Your task to perform on an android device: What's the weather? Image 0: 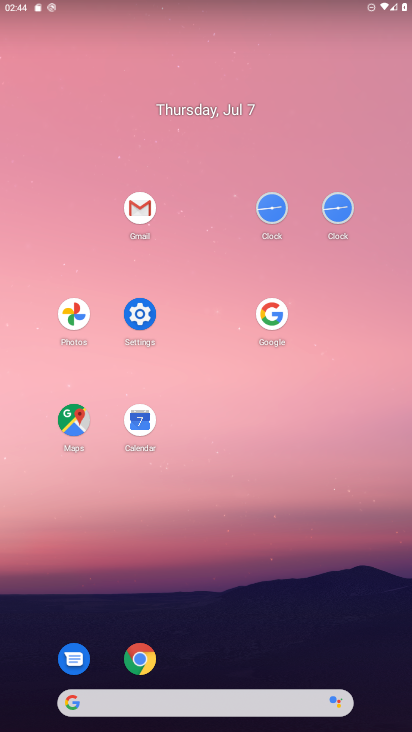
Step 0: click (281, 311)
Your task to perform on an android device: What's the weather? Image 1: 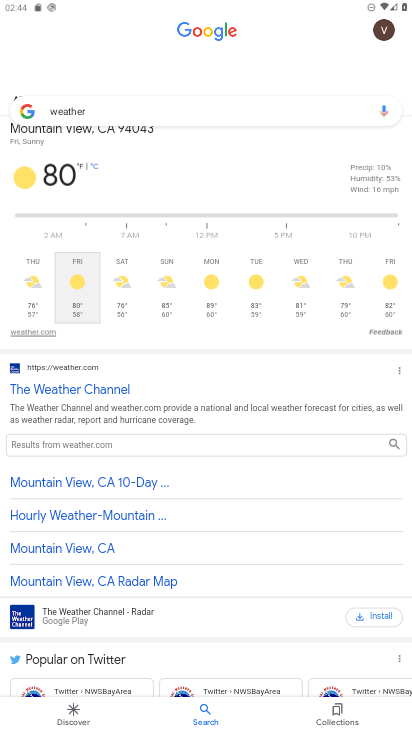
Step 1: click (33, 276)
Your task to perform on an android device: What's the weather? Image 2: 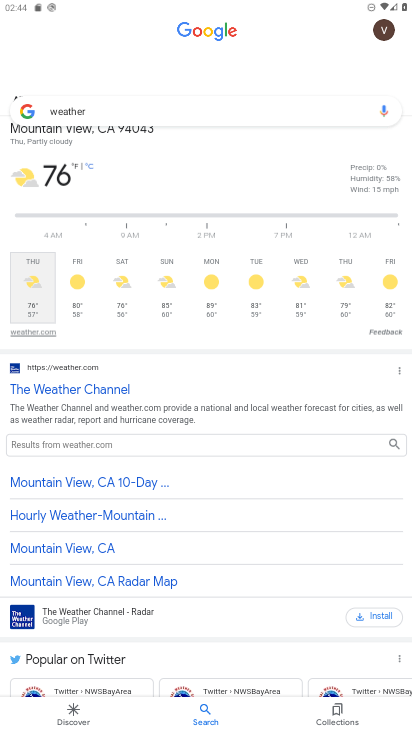
Step 2: task complete